Your task to perform on an android device: turn off location history Image 0: 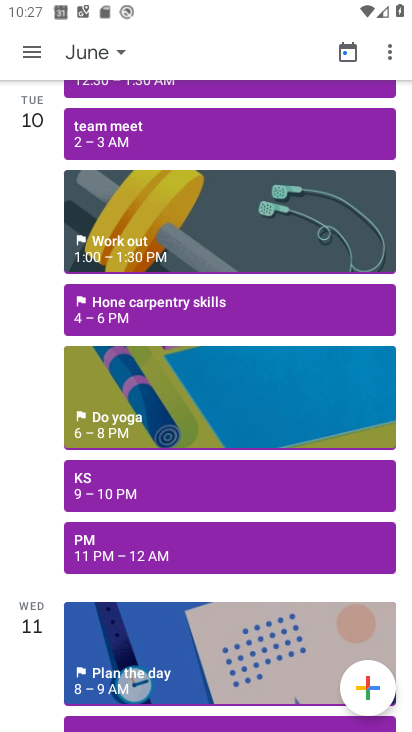
Step 0: press home button
Your task to perform on an android device: turn off location history Image 1: 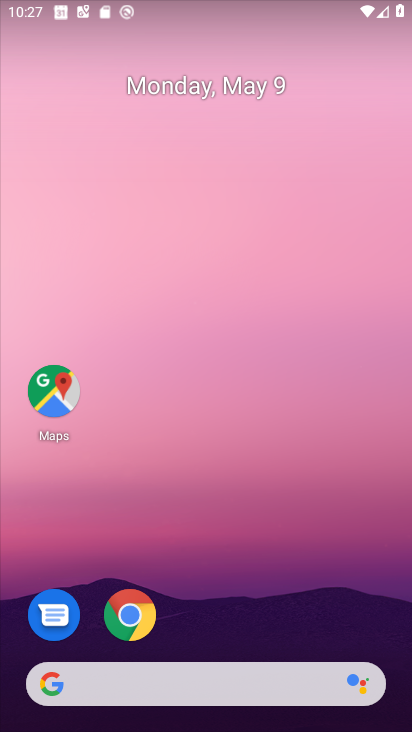
Step 1: drag from (188, 711) to (323, 91)
Your task to perform on an android device: turn off location history Image 2: 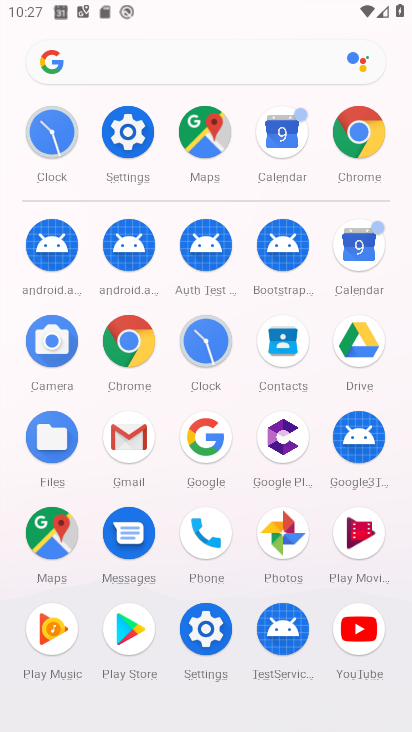
Step 2: click (189, 624)
Your task to perform on an android device: turn off location history Image 3: 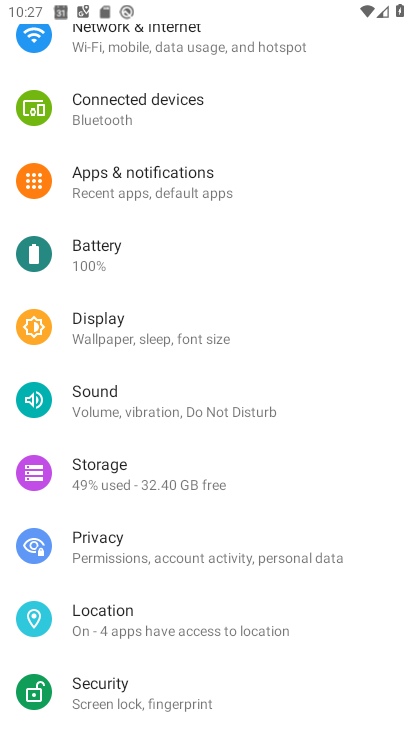
Step 3: drag from (198, 185) to (168, 406)
Your task to perform on an android device: turn off location history Image 4: 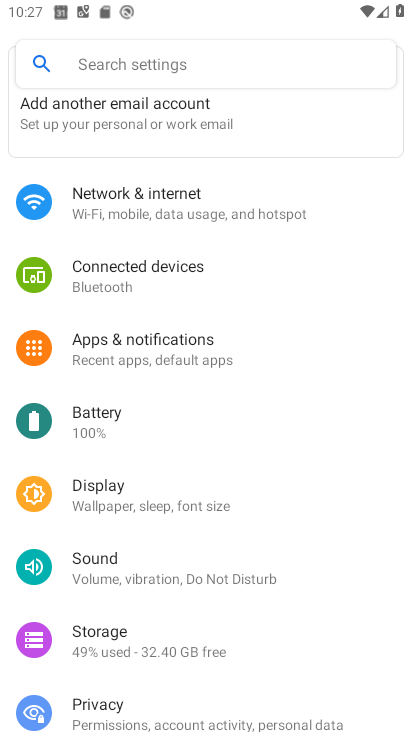
Step 4: click (189, 60)
Your task to perform on an android device: turn off location history Image 5: 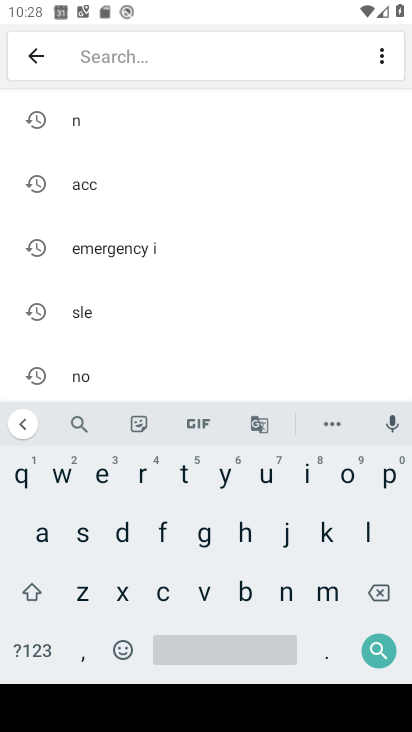
Step 5: click (366, 531)
Your task to perform on an android device: turn off location history Image 6: 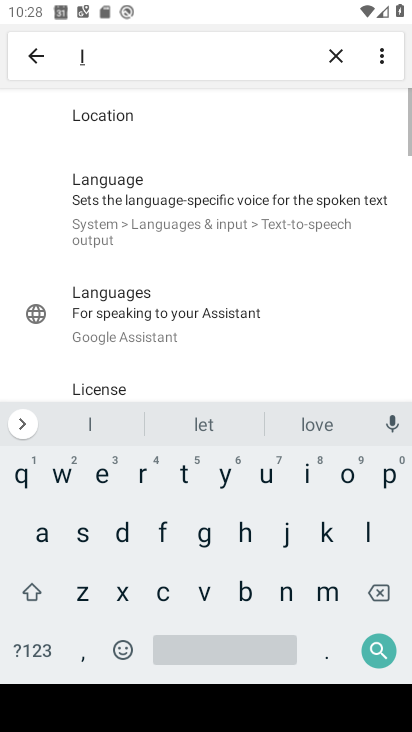
Step 6: click (342, 481)
Your task to perform on an android device: turn off location history Image 7: 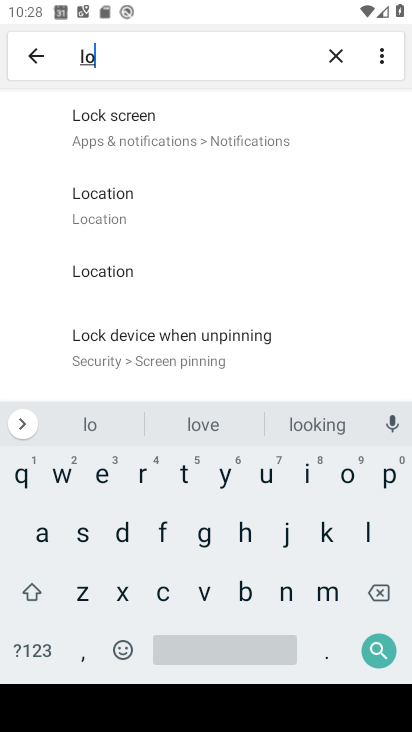
Step 7: click (138, 211)
Your task to perform on an android device: turn off location history Image 8: 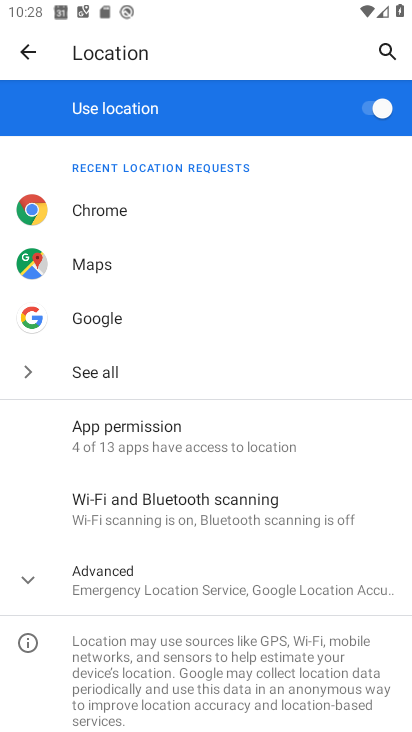
Step 8: click (28, 568)
Your task to perform on an android device: turn off location history Image 9: 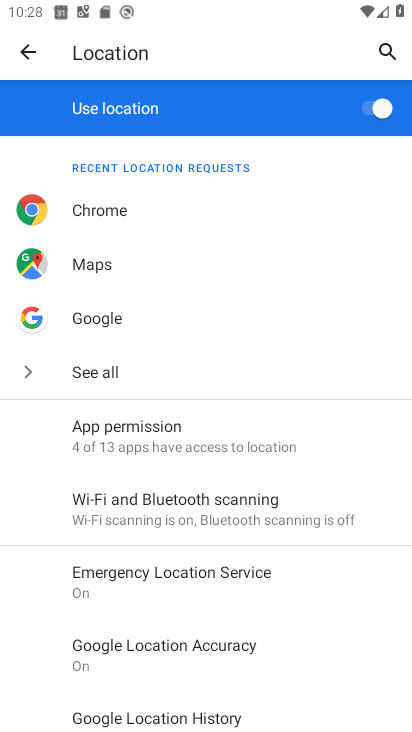
Step 9: click (181, 714)
Your task to perform on an android device: turn off location history Image 10: 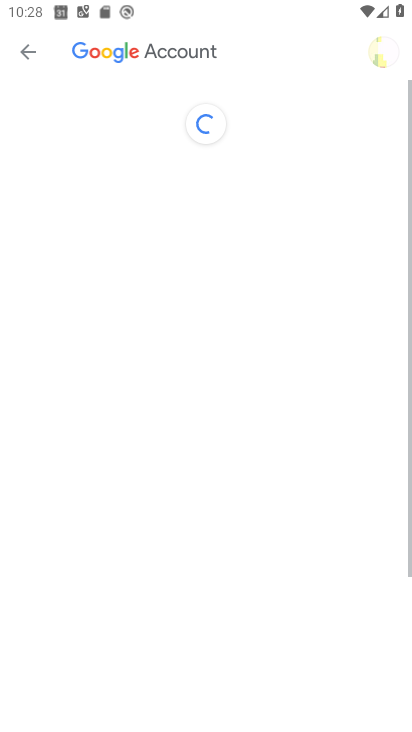
Step 10: task complete